Your task to perform on an android device: refresh tabs in the chrome app Image 0: 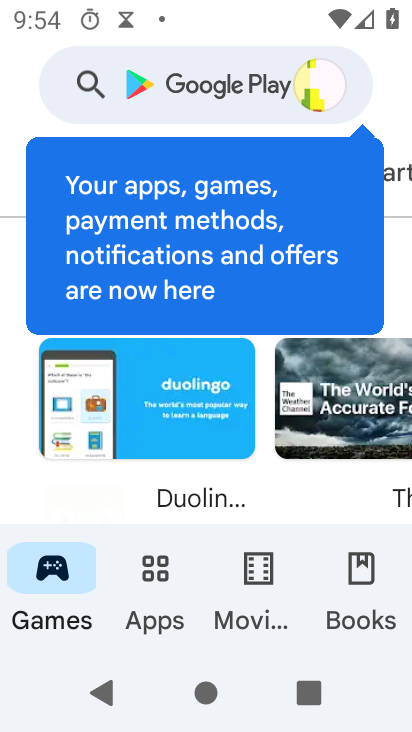
Step 0: press home button
Your task to perform on an android device: refresh tabs in the chrome app Image 1: 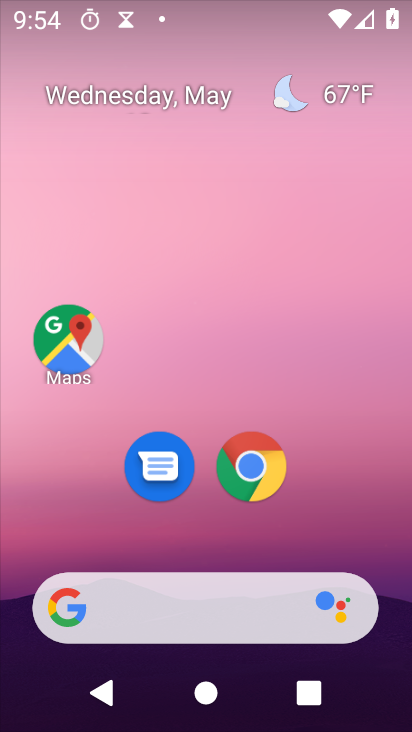
Step 1: click (274, 465)
Your task to perform on an android device: refresh tabs in the chrome app Image 2: 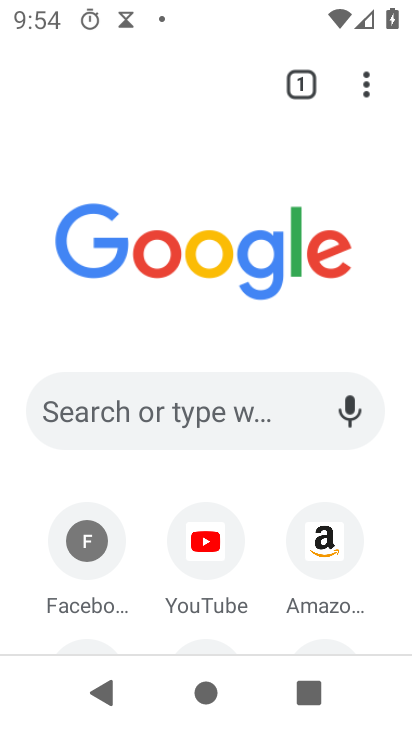
Step 2: click (374, 89)
Your task to perform on an android device: refresh tabs in the chrome app Image 3: 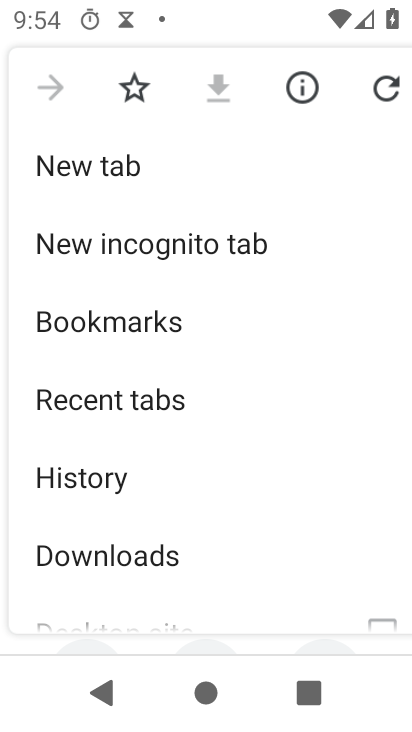
Step 3: click (386, 90)
Your task to perform on an android device: refresh tabs in the chrome app Image 4: 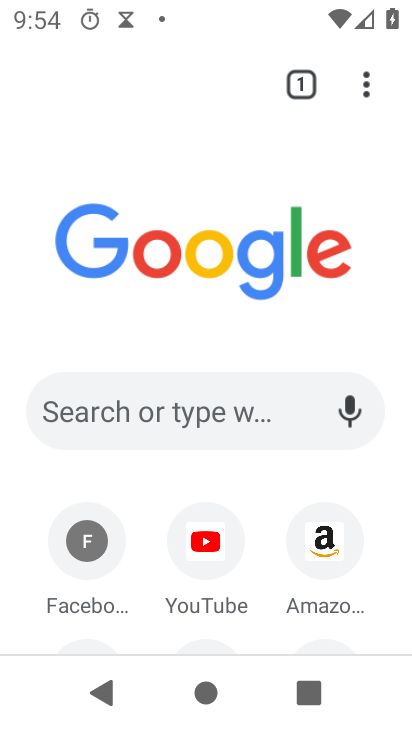
Step 4: task complete